Your task to perform on an android device: Go to network settings Image 0: 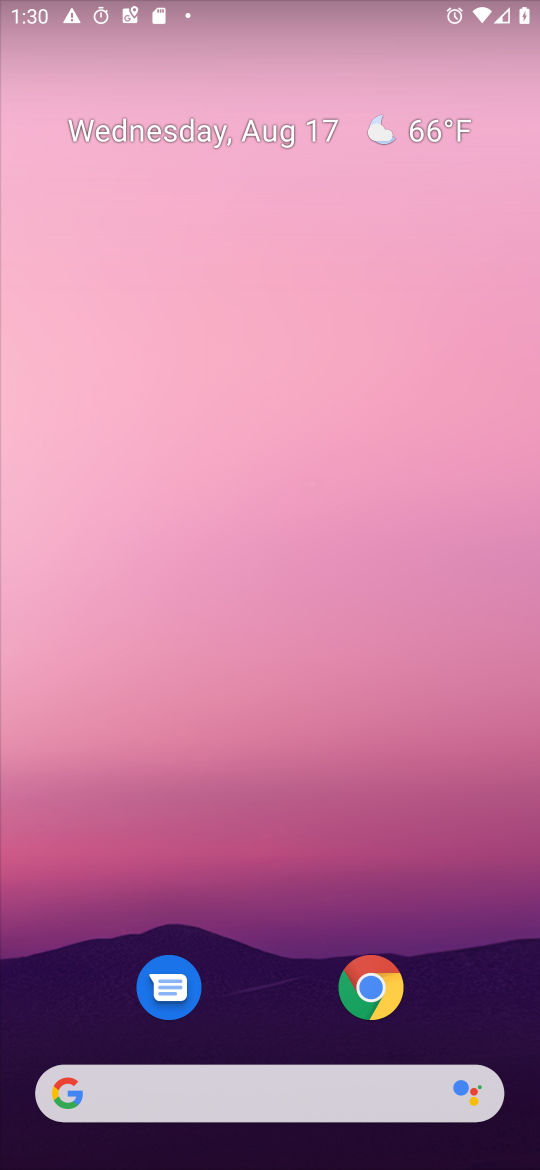
Step 0: drag from (16, 1105) to (453, 231)
Your task to perform on an android device: Go to network settings Image 1: 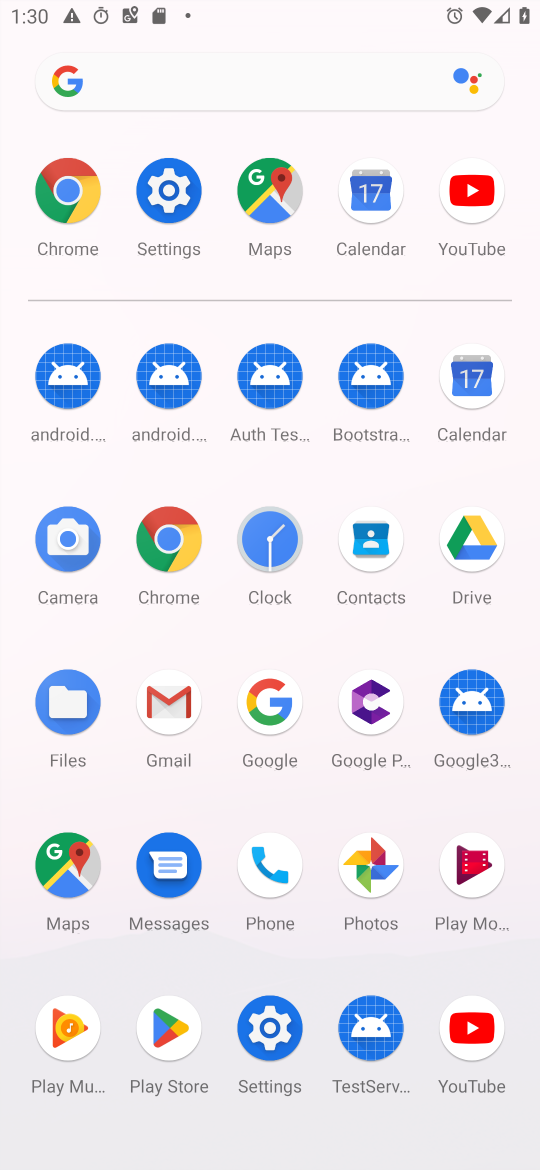
Step 1: click (253, 1034)
Your task to perform on an android device: Go to network settings Image 2: 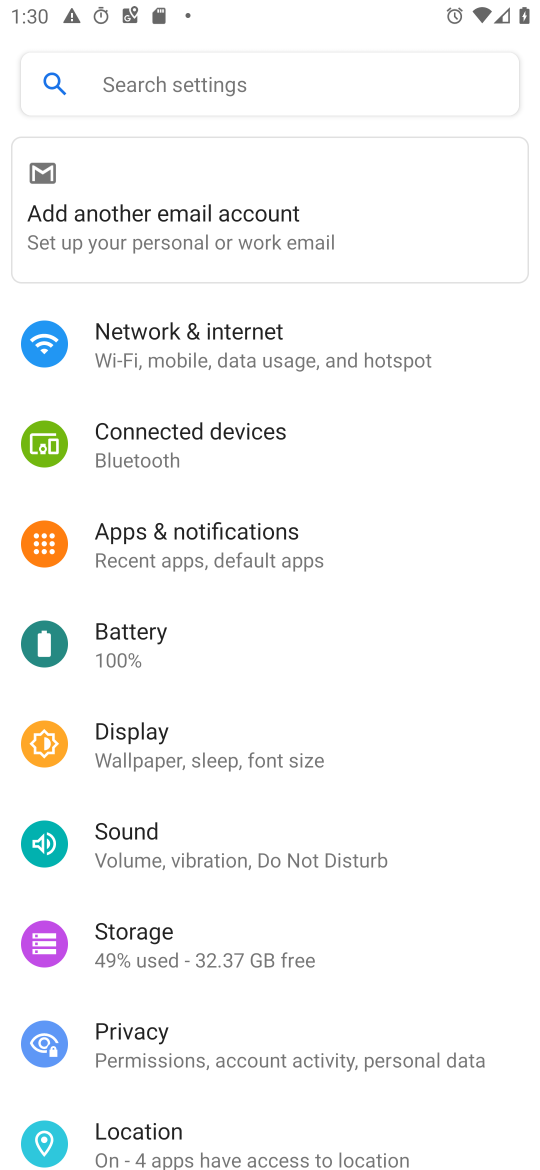
Step 2: click (249, 353)
Your task to perform on an android device: Go to network settings Image 3: 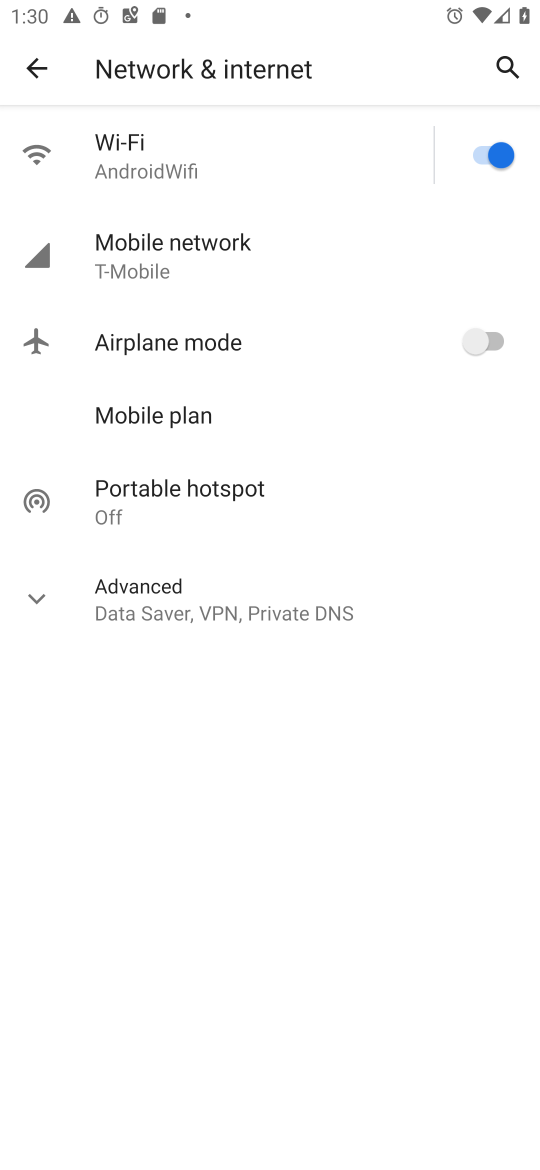
Step 3: task complete